Your task to perform on an android device: add a contact in the contacts app Image 0: 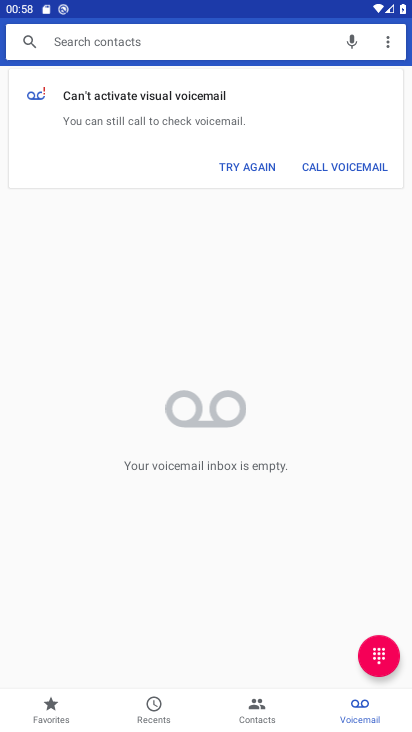
Step 0: press home button
Your task to perform on an android device: add a contact in the contacts app Image 1: 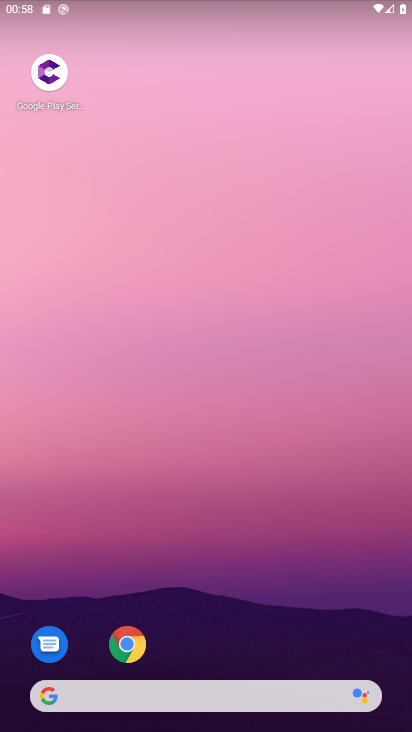
Step 1: drag from (304, 630) to (295, 42)
Your task to perform on an android device: add a contact in the contacts app Image 2: 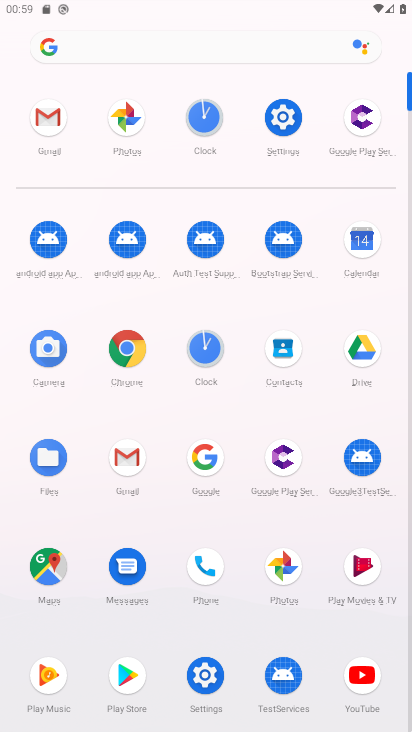
Step 2: click (278, 352)
Your task to perform on an android device: add a contact in the contacts app Image 3: 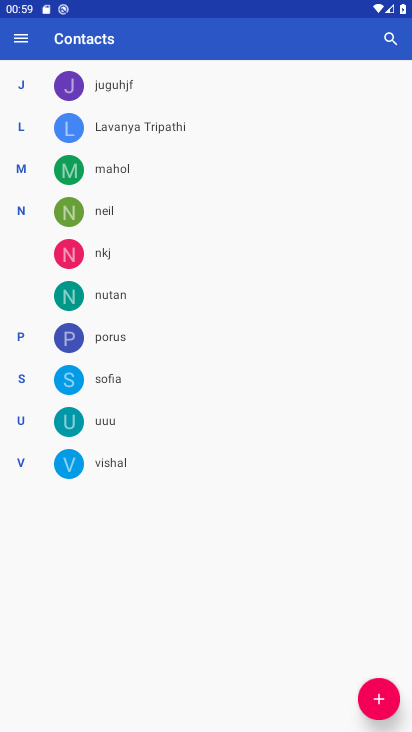
Step 3: click (382, 706)
Your task to perform on an android device: add a contact in the contacts app Image 4: 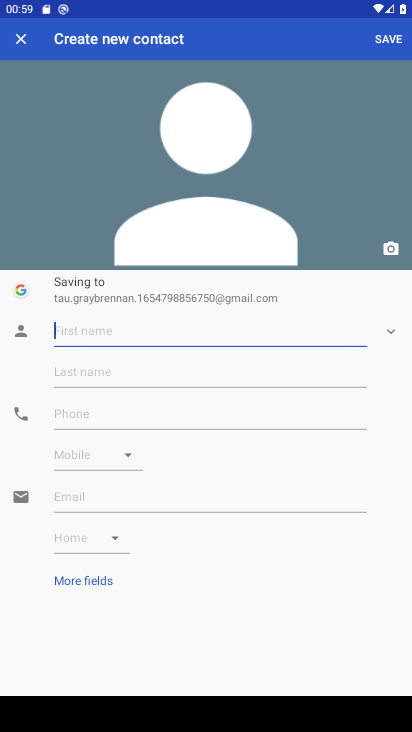
Step 4: type "nhfcf"
Your task to perform on an android device: add a contact in the contacts app Image 5: 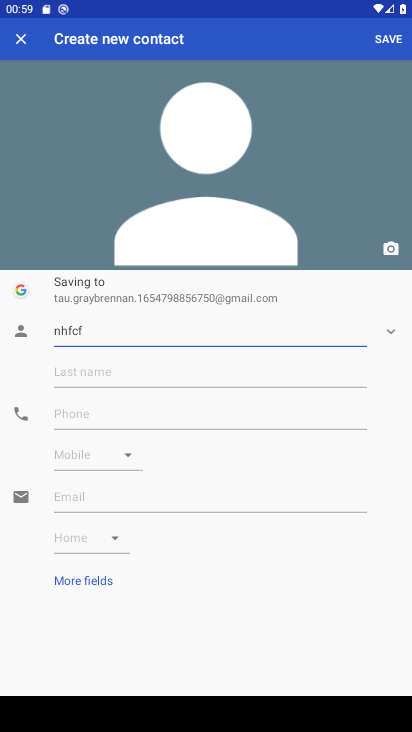
Step 5: click (118, 416)
Your task to perform on an android device: add a contact in the contacts app Image 6: 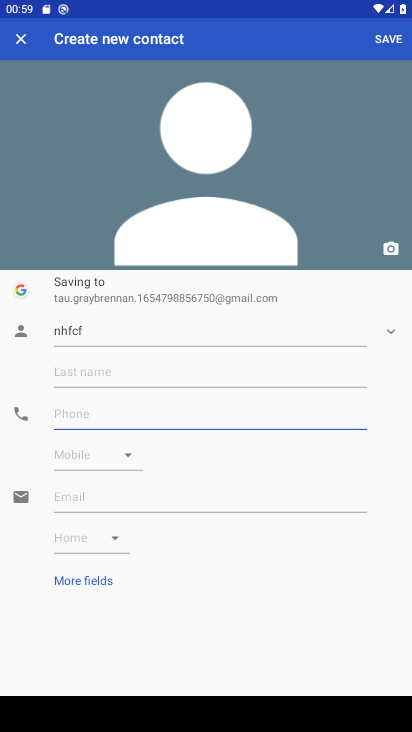
Step 6: type "45456789909"
Your task to perform on an android device: add a contact in the contacts app Image 7: 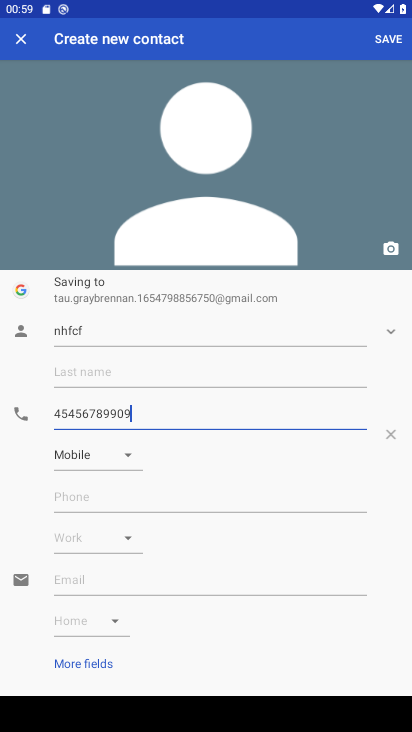
Step 7: click (392, 37)
Your task to perform on an android device: add a contact in the contacts app Image 8: 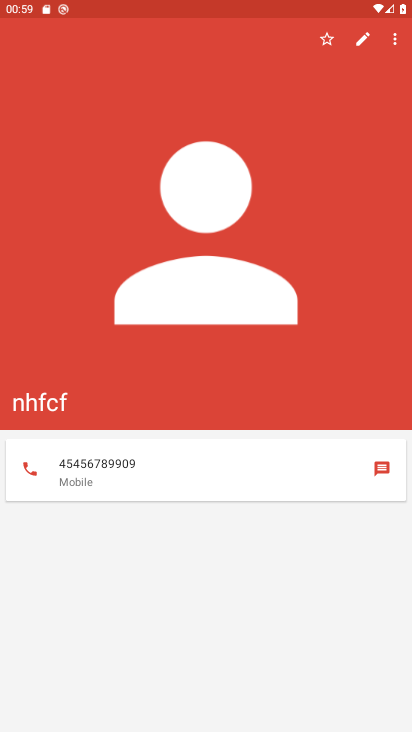
Step 8: task complete